Your task to perform on an android device: turn off javascript in the chrome app Image 0: 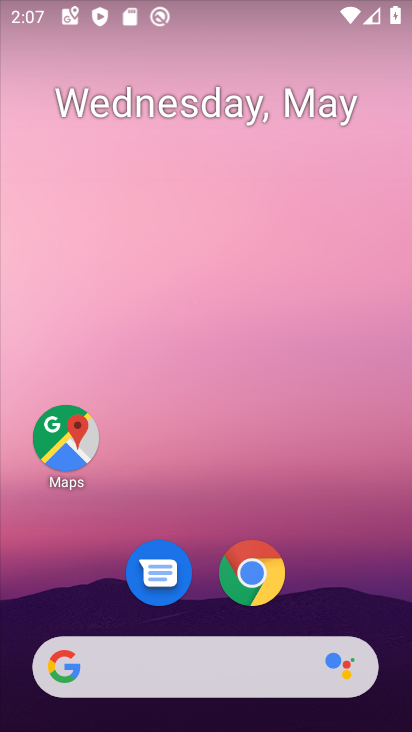
Step 0: click (249, 568)
Your task to perform on an android device: turn off javascript in the chrome app Image 1: 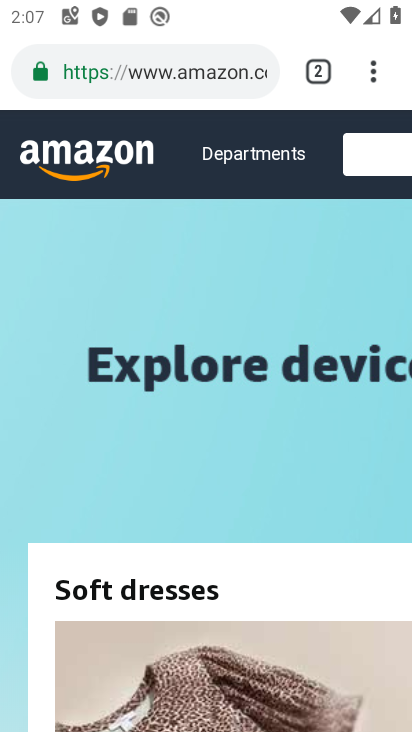
Step 1: click (377, 54)
Your task to perform on an android device: turn off javascript in the chrome app Image 2: 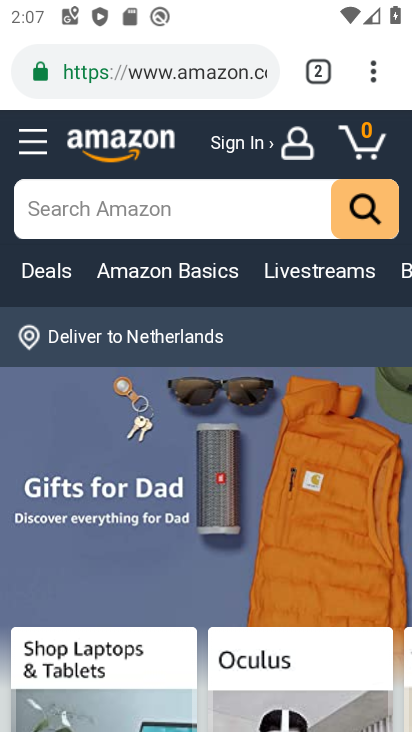
Step 2: click (370, 67)
Your task to perform on an android device: turn off javascript in the chrome app Image 3: 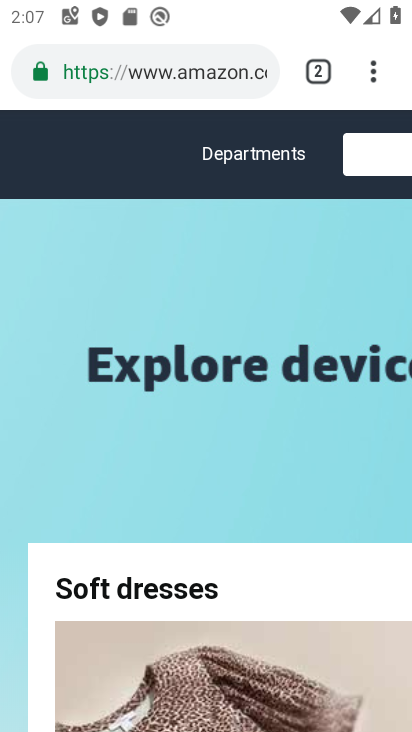
Step 3: click (403, 100)
Your task to perform on an android device: turn off javascript in the chrome app Image 4: 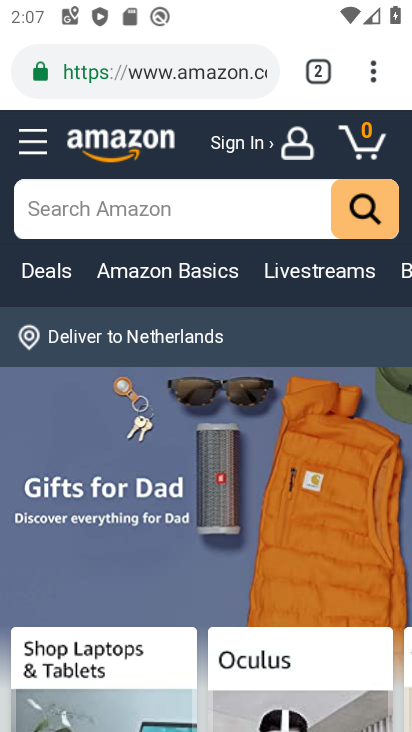
Step 4: click (391, 102)
Your task to perform on an android device: turn off javascript in the chrome app Image 5: 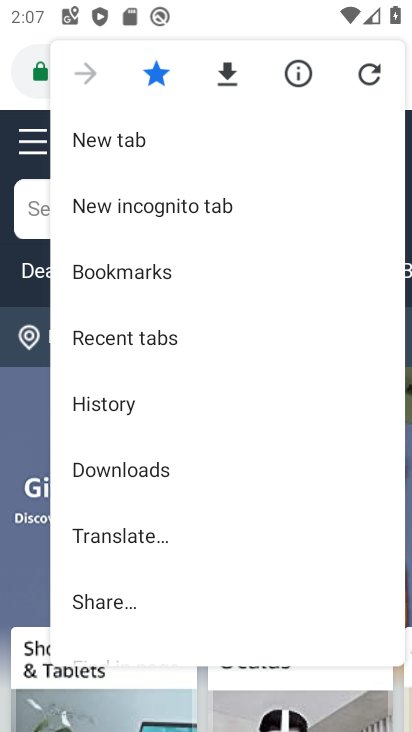
Step 5: drag from (233, 603) to (272, 271)
Your task to perform on an android device: turn off javascript in the chrome app Image 6: 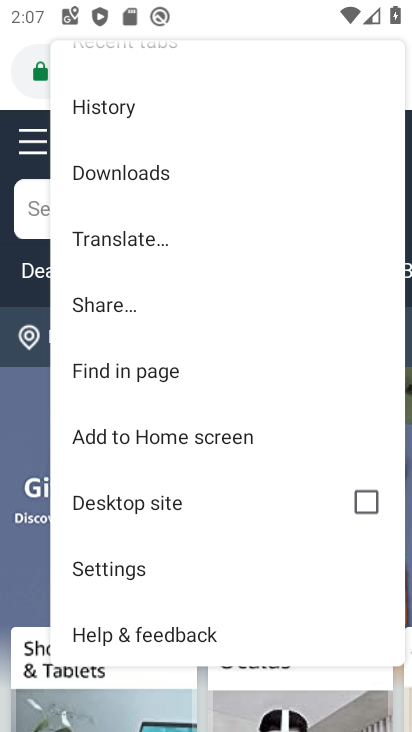
Step 6: click (205, 576)
Your task to perform on an android device: turn off javascript in the chrome app Image 7: 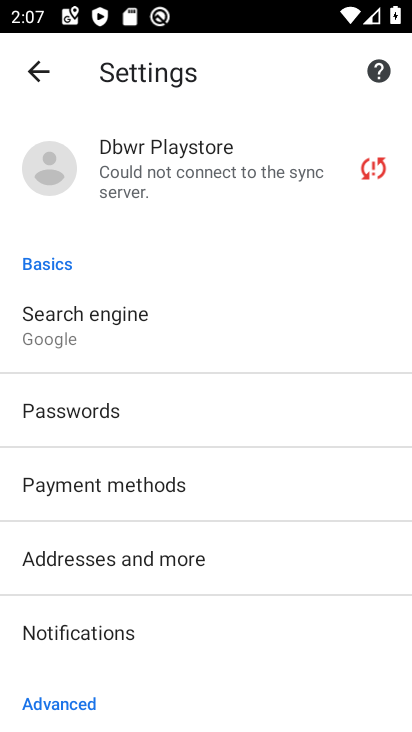
Step 7: drag from (179, 654) to (221, 257)
Your task to perform on an android device: turn off javascript in the chrome app Image 8: 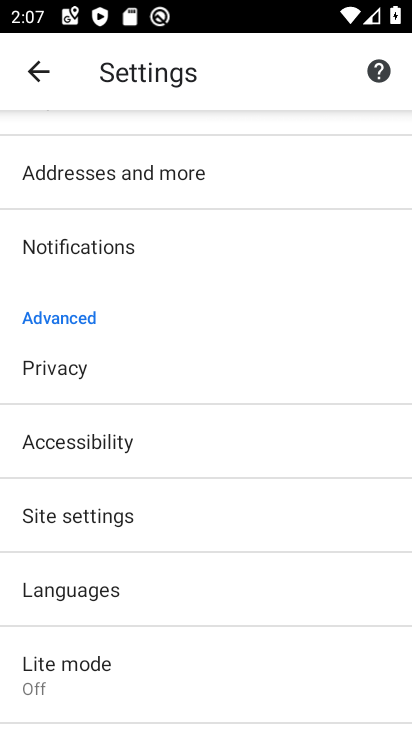
Step 8: click (172, 530)
Your task to perform on an android device: turn off javascript in the chrome app Image 9: 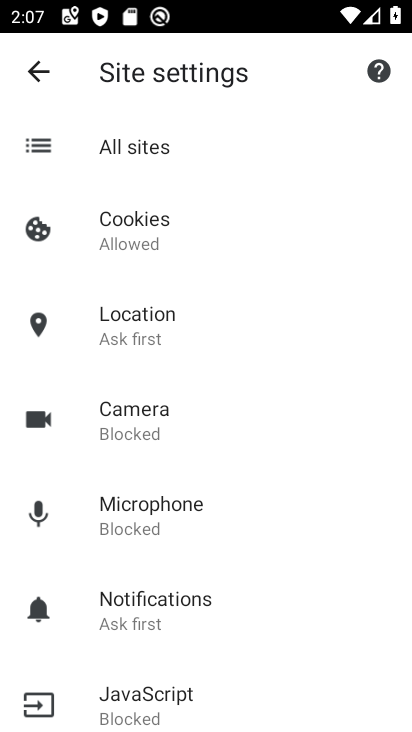
Step 9: click (184, 683)
Your task to perform on an android device: turn off javascript in the chrome app Image 10: 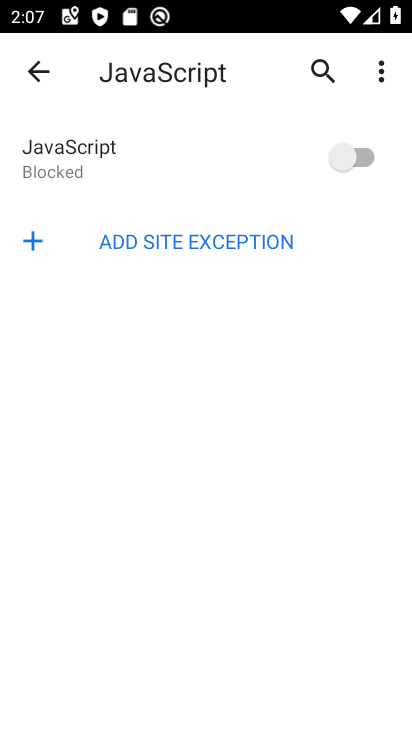
Step 10: task complete